Your task to perform on an android device: When is my next meeting? Image 0: 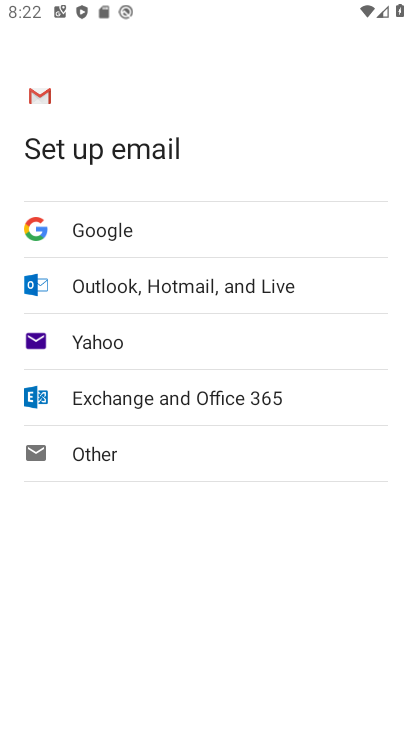
Step 0: press home button
Your task to perform on an android device: When is my next meeting? Image 1: 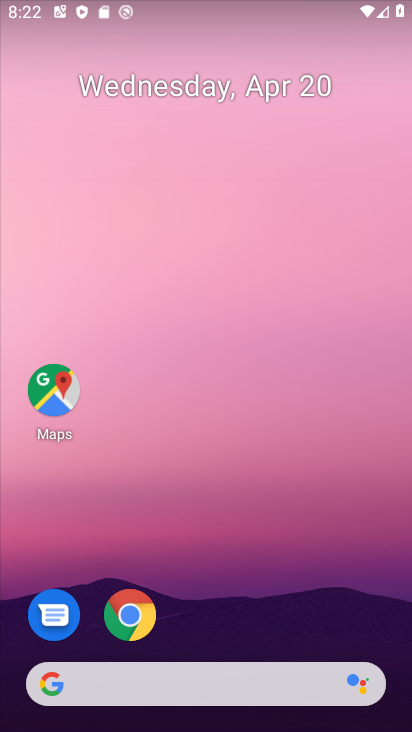
Step 1: drag from (218, 627) to (297, 166)
Your task to perform on an android device: When is my next meeting? Image 2: 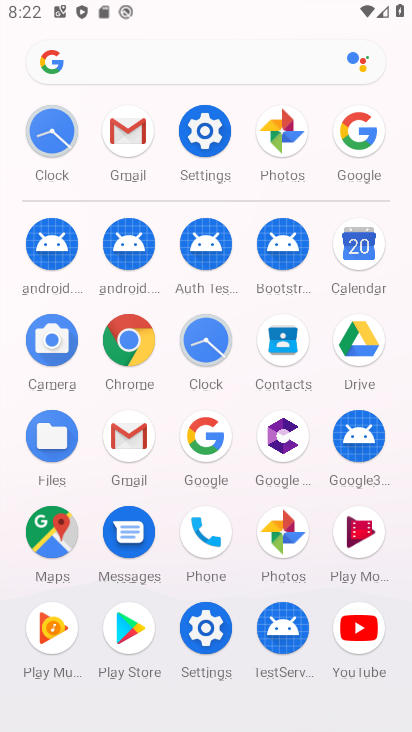
Step 2: click (353, 251)
Your task to perform on an android device: When is my next meeting? Image 3: 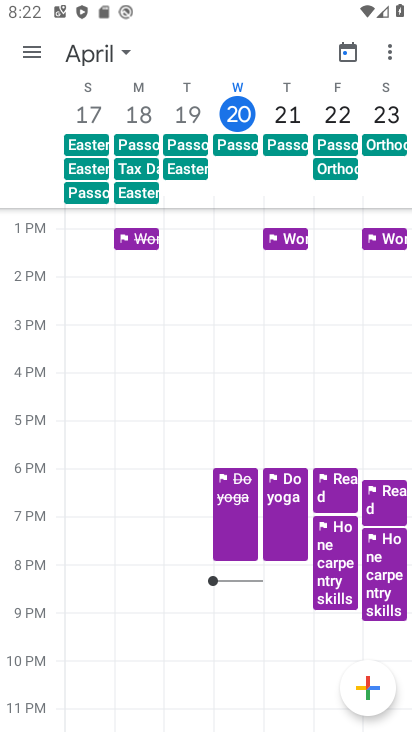
Step 3: click (127, 56)
Your task to perform on an android device: When is my next meeting? Image 4: 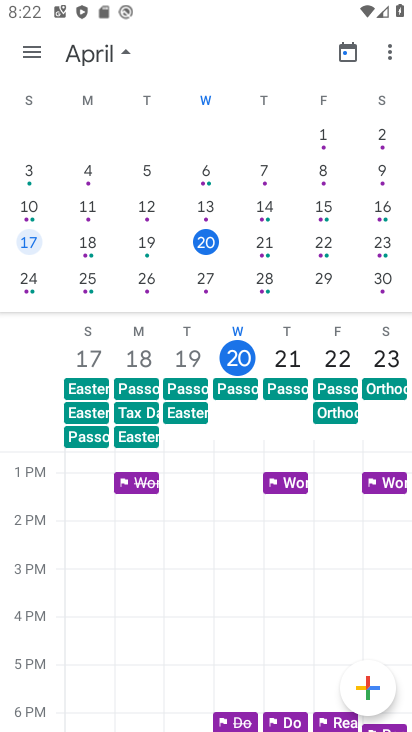
Step 4: click (100, 278)
Your task to perform on an android device: When is my next meeting? Image 5: 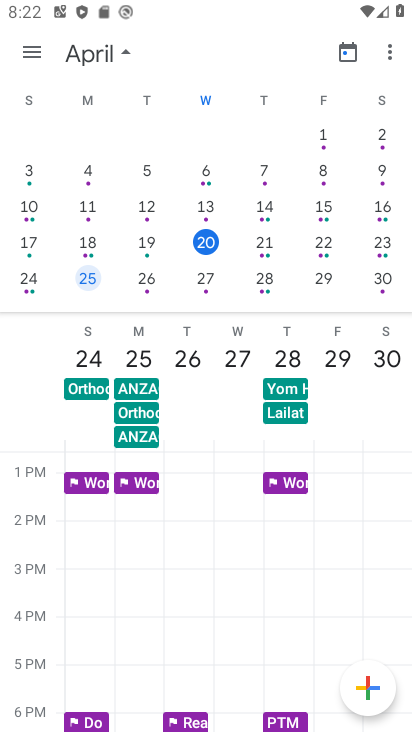
Step 5: click (33, 53)
Your task to perform on an android device: When is my next meeting? Image 6: 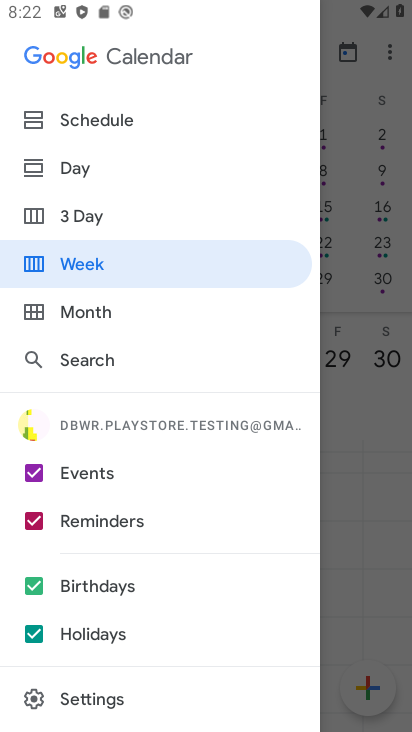
Step 6: click (79, 263)
Your task to perform on an android device: When is my next meeting? Image 7: 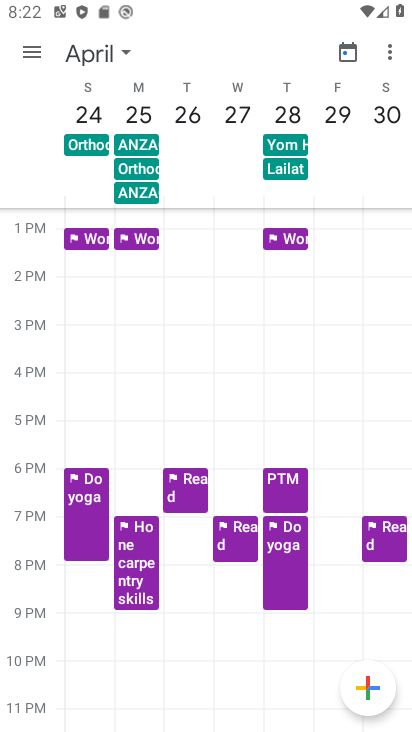
Step 7: task complete